Your task to perform on an android device: What's on my calendar tomorrow? Image 0: 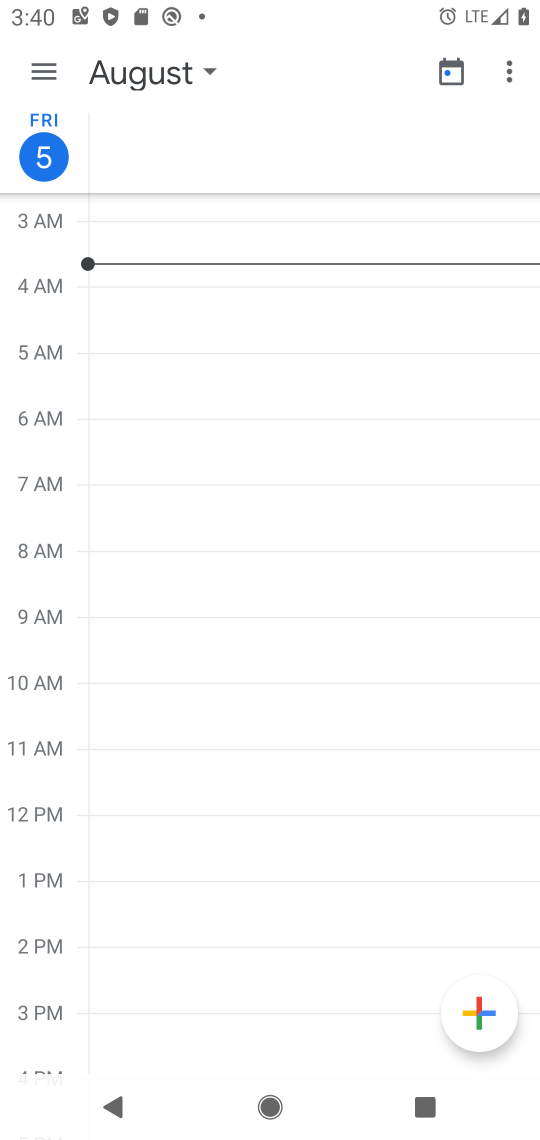
Step 0: click (46, 60)
Your task to perform on an android device: What's on my calendar tomorrow? Image 1: 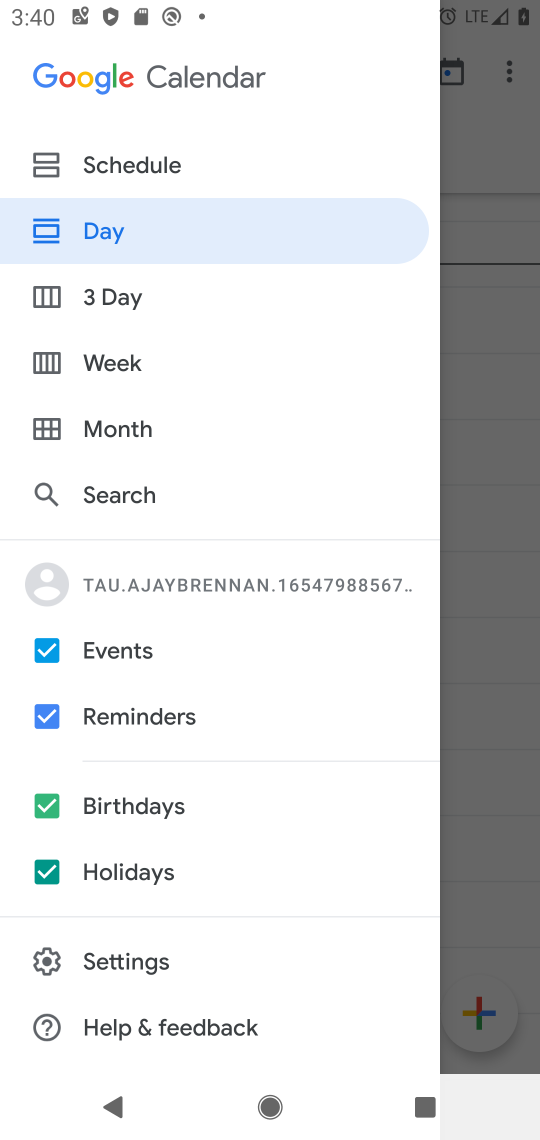
Step 1: click (160, 159)
Your task to perform on an android device: What's on my calendar tomorrow? Image 2: 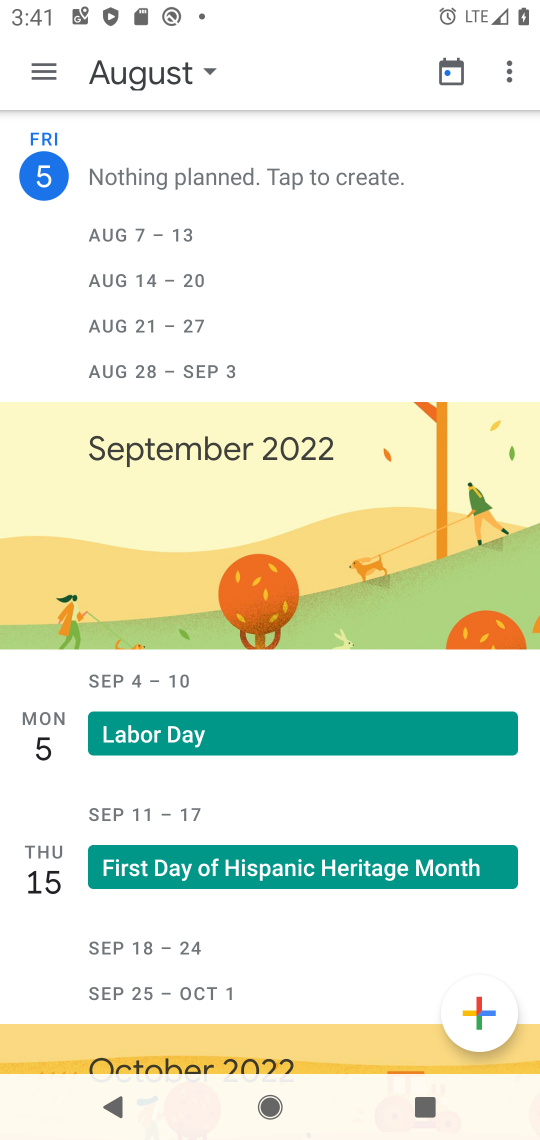
Step 2: click (159, 88)
Your task to perform on an android device: What's on my calendar tomorrow? Image 3: 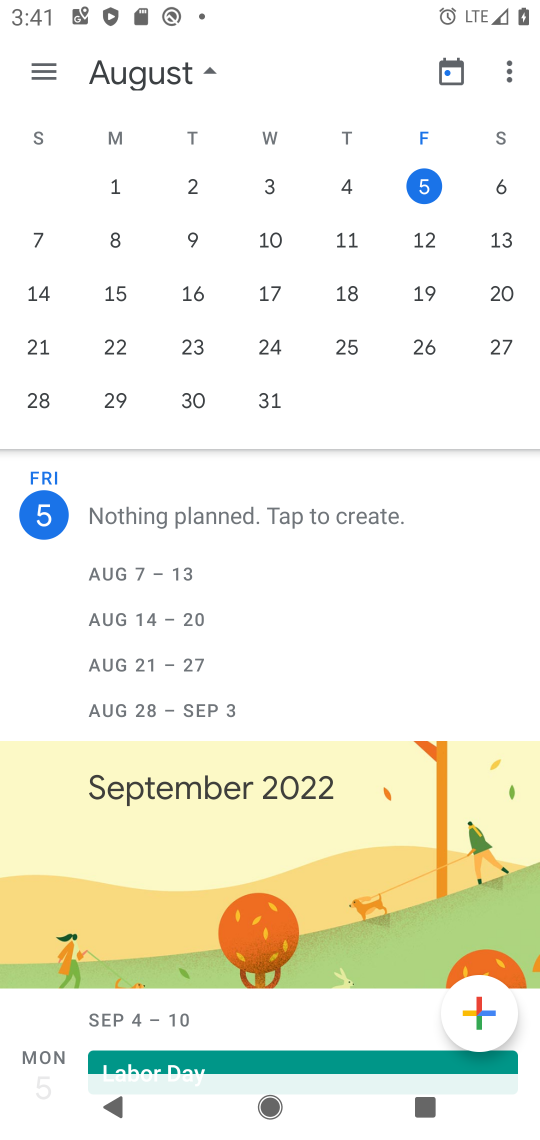
Step 3: click (492, 180)
Your task to perform on an android device: What's on my calendar tomorrow? Image 4: 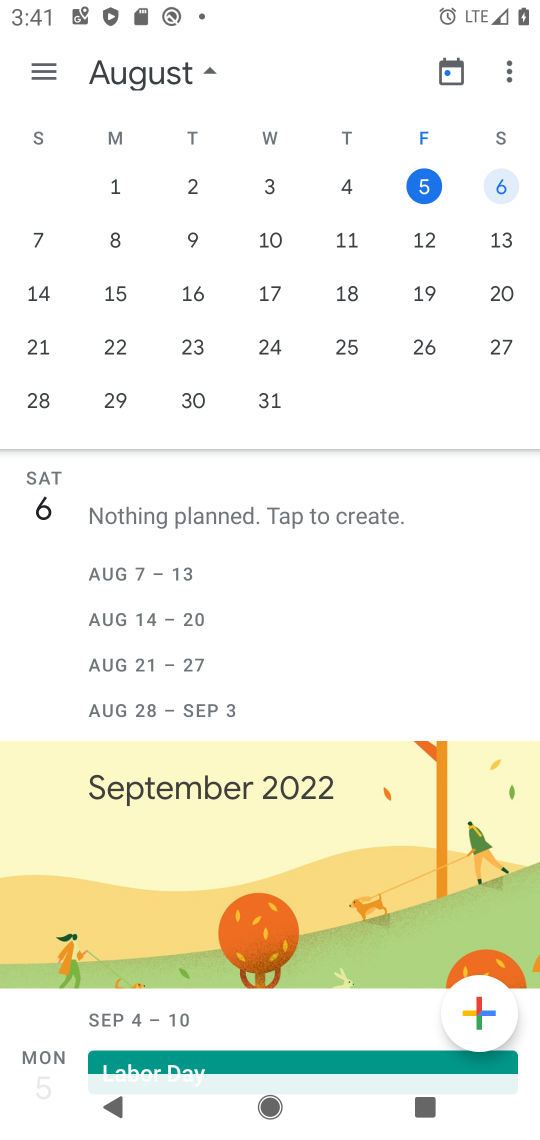
Step 4: task complete